Your task to perform on an android device: change the clock display to analog Image 0: 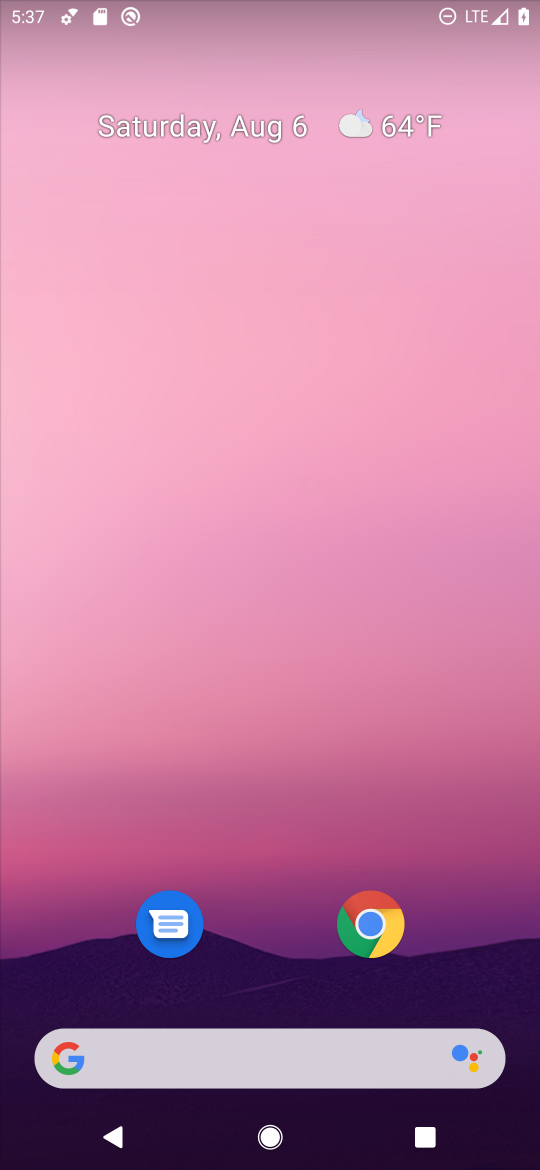
Step 0: drag from (277, 830) to (331, 24)
Your task to perform on an android device: change the clock display to analog Image 1: 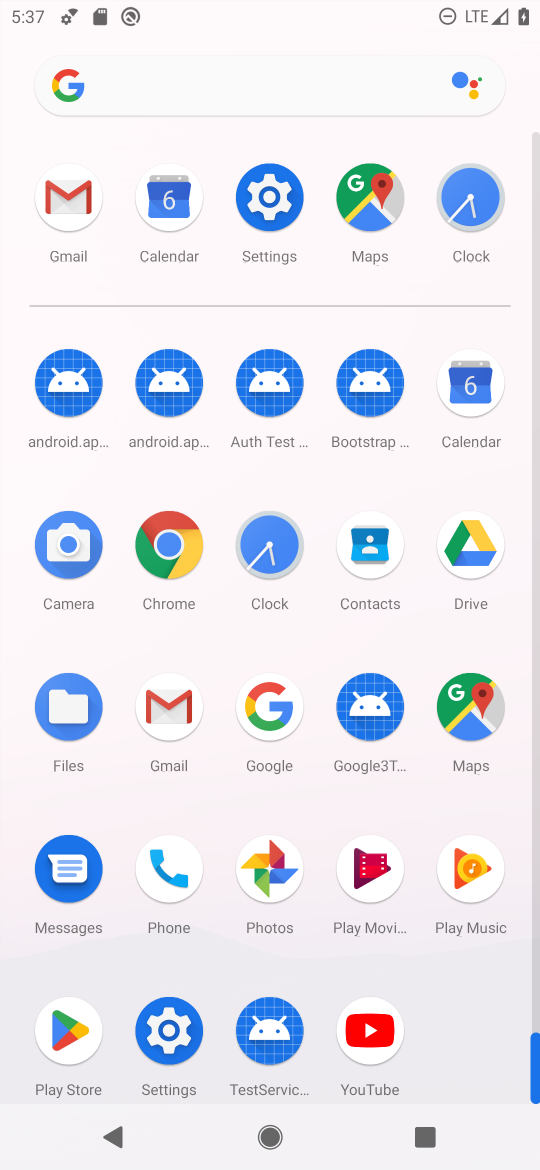
Step 1: click (473, 203)
Your task to perform on an android device: change the clock display to analog Image 2: 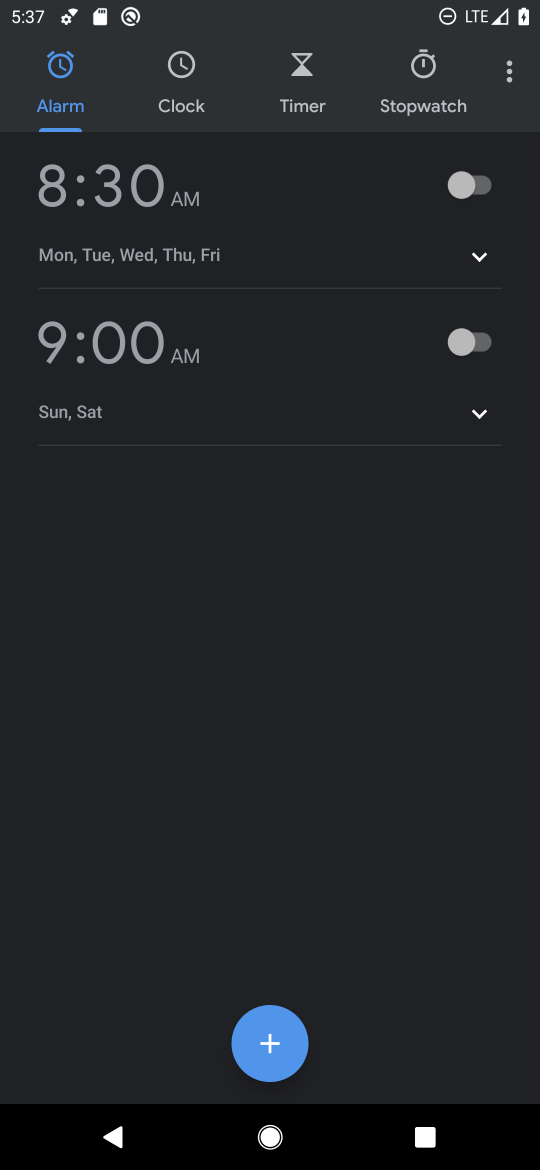
Step 2: click (509, 91)
Your task to perform on an android device: change the clock display to analog Image 3: 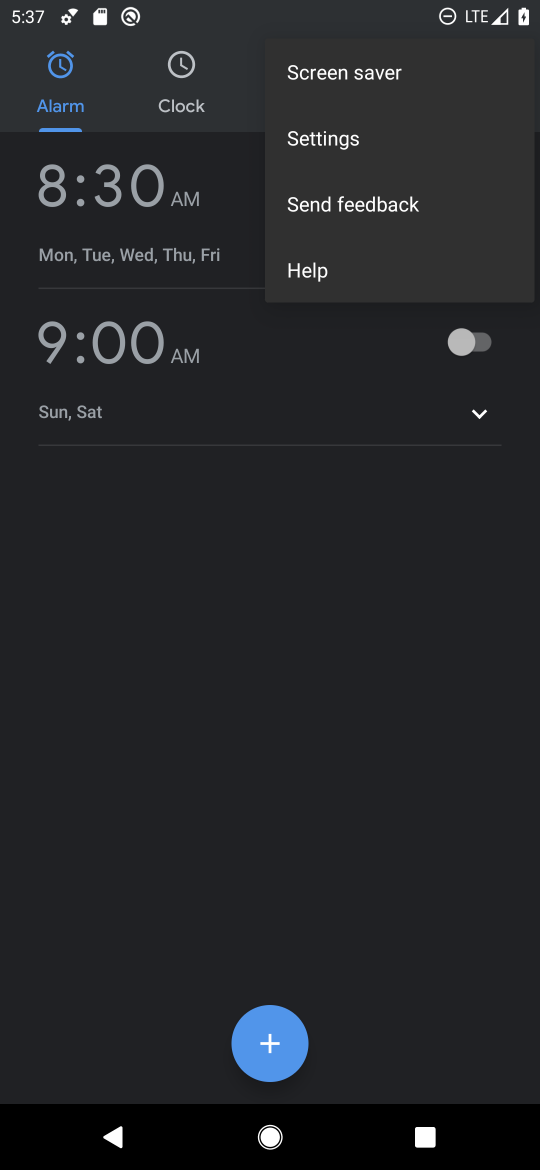
Step 3: click (309, 123)
Your task to perform on an android device: change the clock display to analog Image 4: 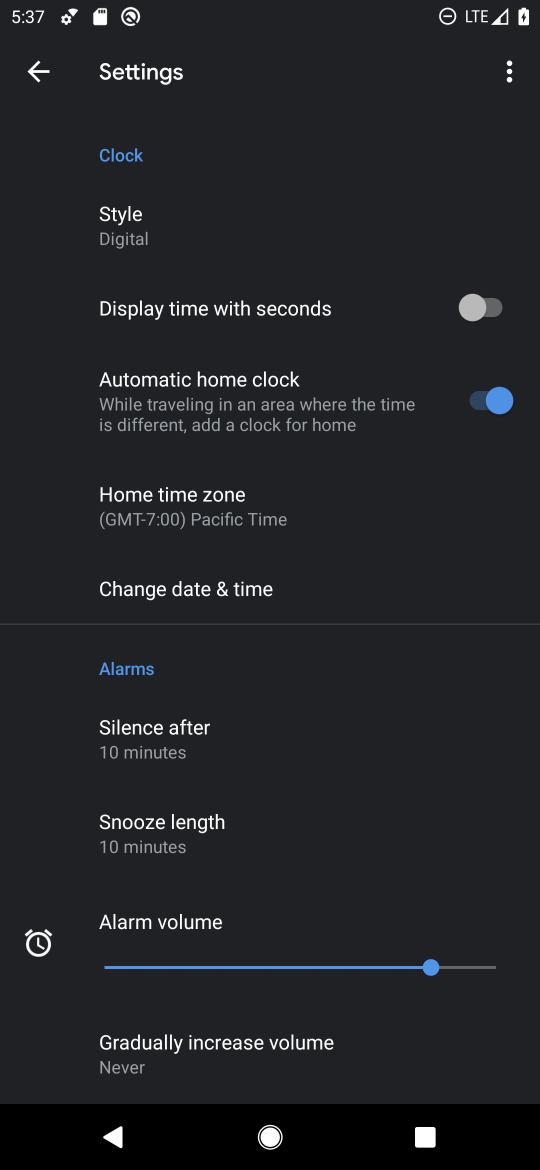
Step 4: click (117, 213)
Your task to perform on an android device: change the clock display to analog Image 5: 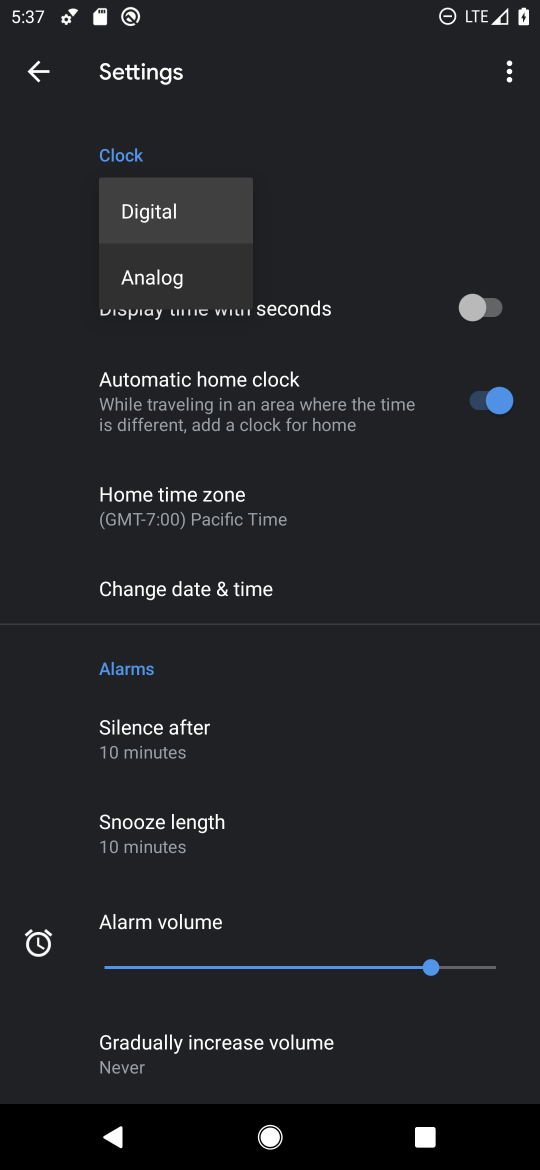
Step 5: click (156, 270)
Your task to perform on an android device: change the clock display to analog Image 6: 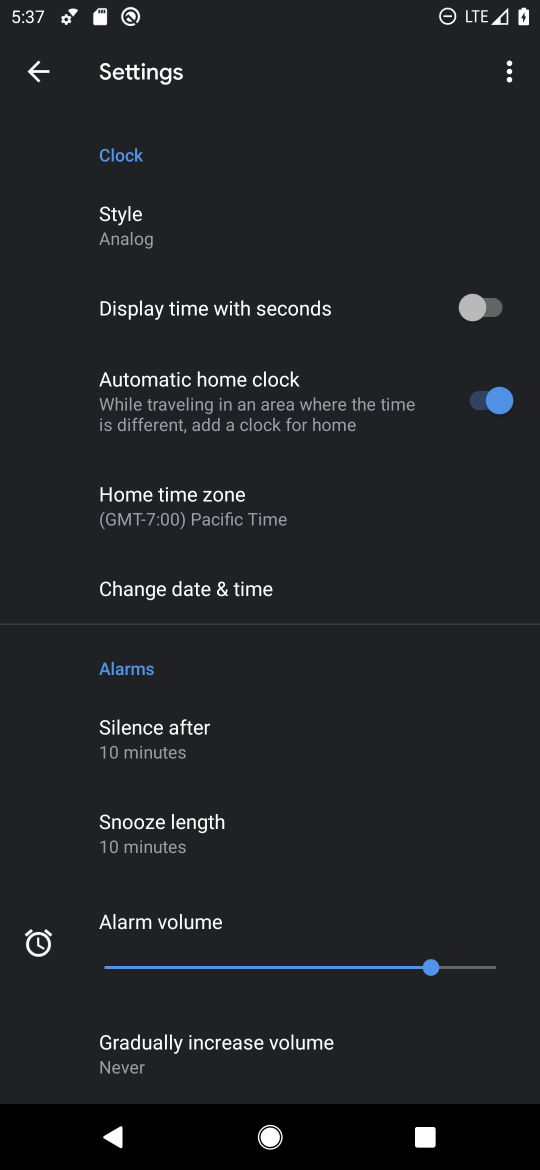
Step 6: task complete